Your task to perform on an android device: What's the latest video from IGN? Image 0: 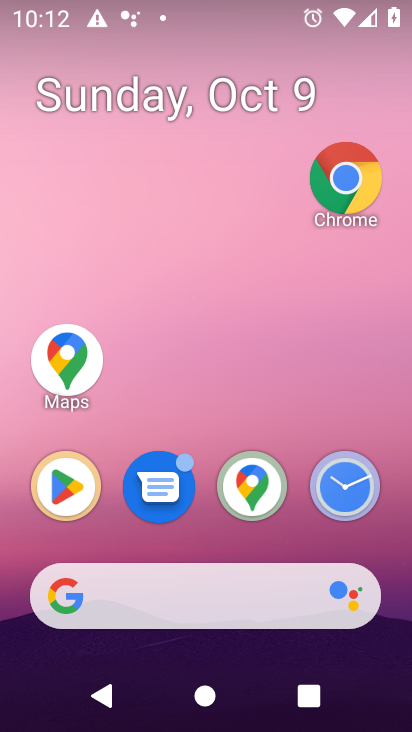
Step 0: drag from (129, 523) to (129, 234)
Your task to perform on an android device: What's the latest video from IGN? Image 1: 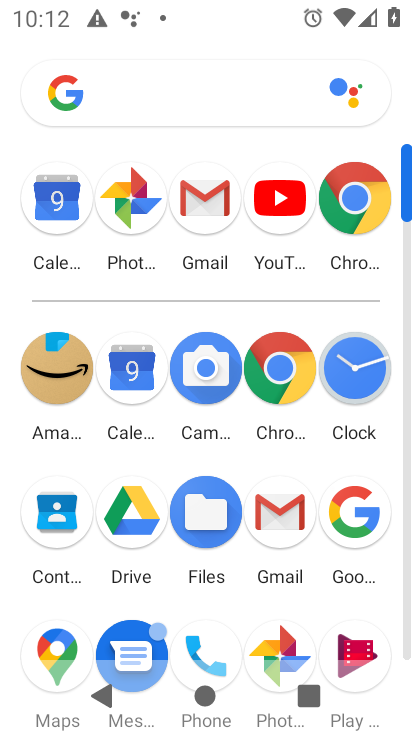
Step 1: drag from (187, 518) to (187, 235)
Your task to perform on an android device: What's the latest video from IGN? Image 2: 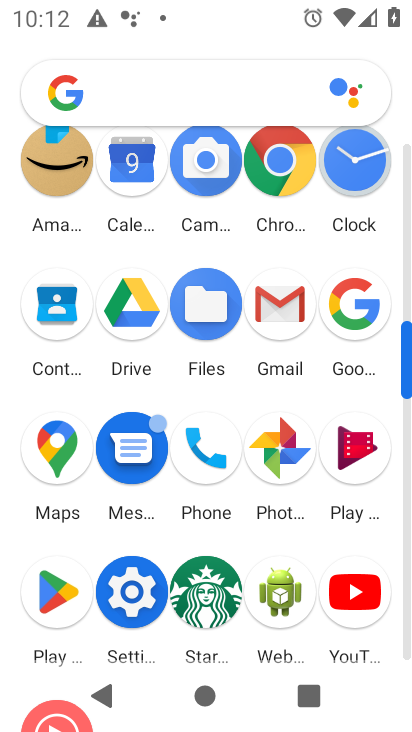
Step 2: click (371, 592)
Your task to perform on an android device: What's the latest video from IGN? Image 3: 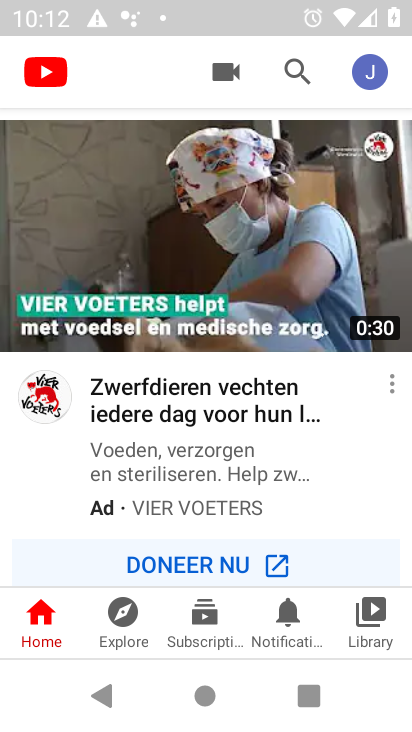
Step 3: click (290, 69)
Your task to perform on an android device: What's the latest video from IGN? Image 4: 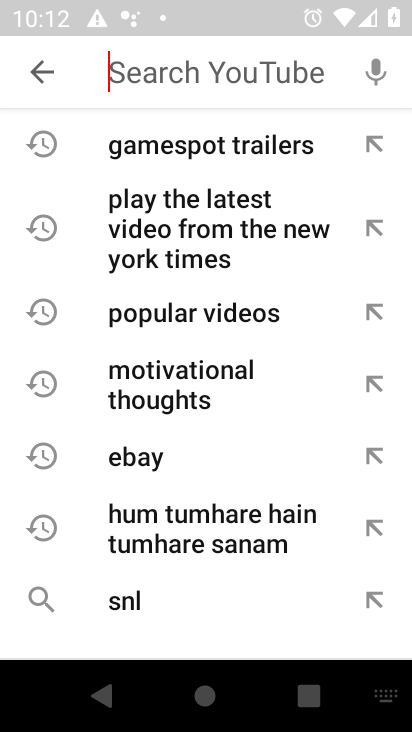
Step 4: type "ign"
Your task to perform on an android device: What's the latest video from IGN? Image 5: 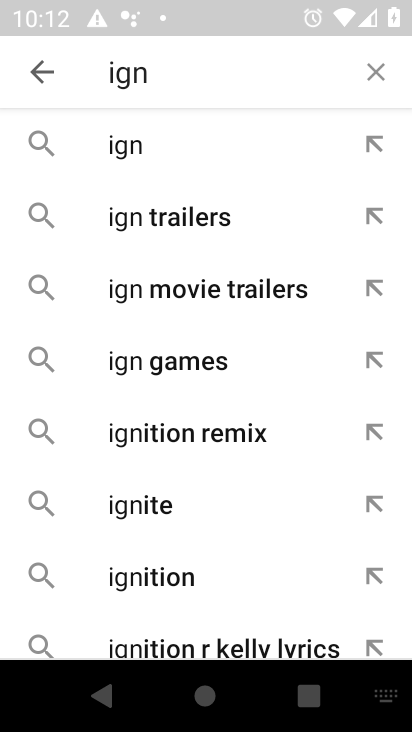
Step 5: click (217, 145)
Your task to perform on an android device: What's the latest video from IGN? Image 6: 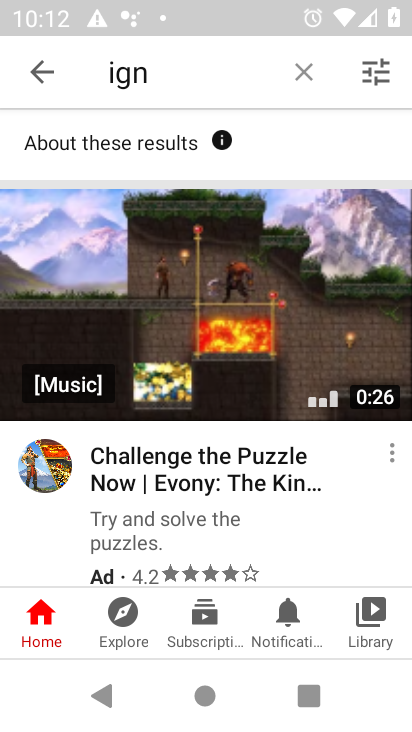
Step 6: drag from (166, 529) to (168, 302)
Your task to perform on an android device: What's the latest video from IGN? Image 7: 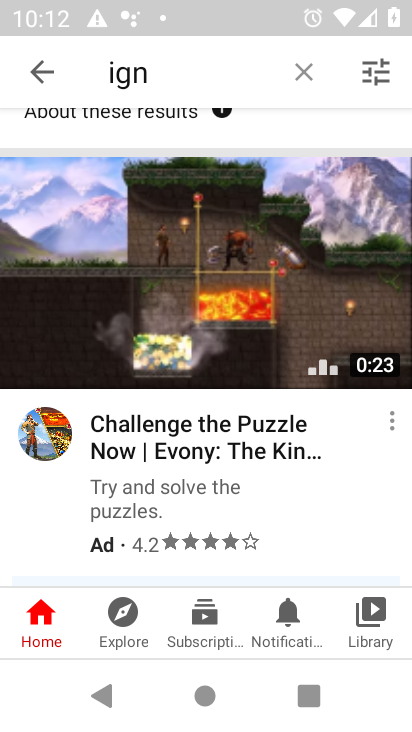
Step 7: drag from (162, 478) to (167, 354)
Your task to perform on an android device: What's the latest video from IGN? Image 8: 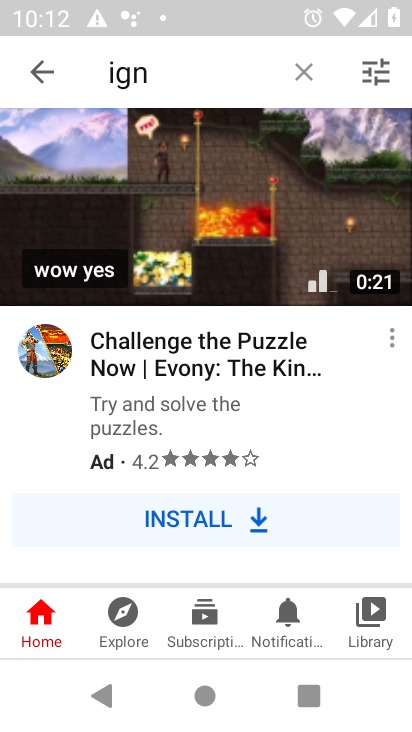
Step 8: drag from (167, 475) to (199, 249)
Your task to perform on an android device: What's the latest video from IGN? Image 9: 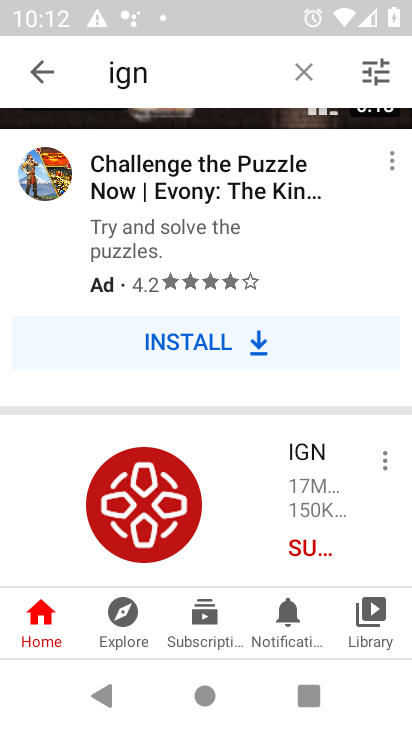
Step 9: drag from (167, 447) to (182, 232)
Your task to perform on an android device: What's the latest video from IGN? Image 10: 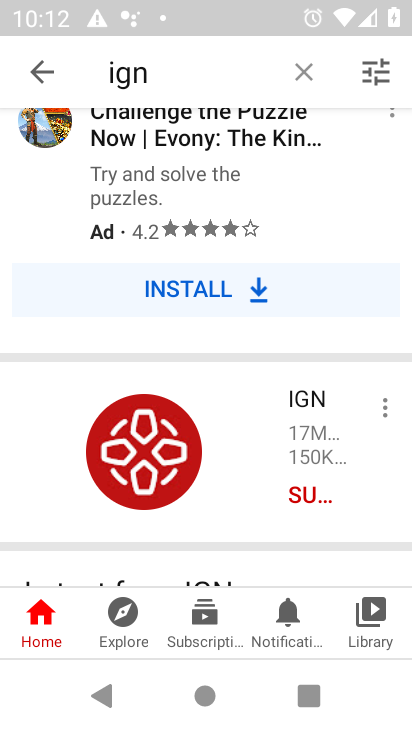
Step 10: click (130, 466)
Your task to perform on an android device: What's the latest video from IGN? Image 11: 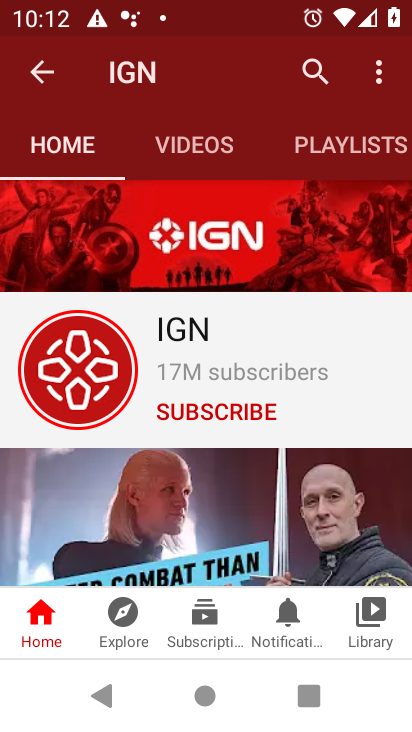
Step 11: task complete